Your task to perform on an android device: What's on my calendar tomorrow? Image 0: 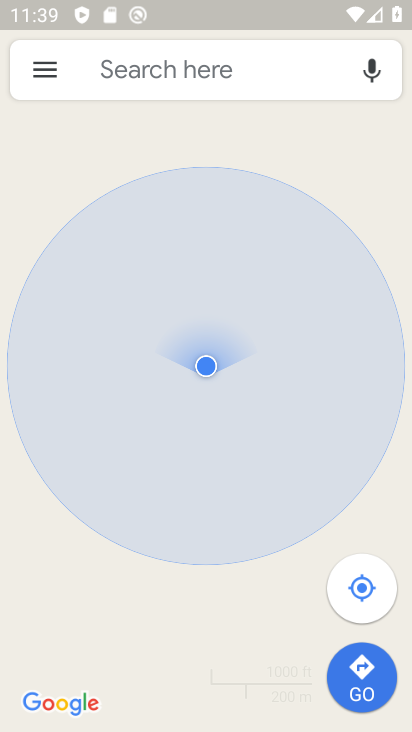
Step 0: press home button
Your task to perform on an android device: What's on my calendar tomorrow? Image 1: 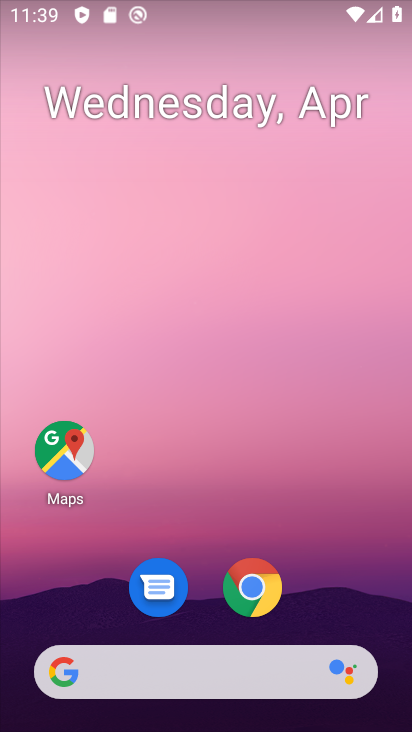
Step 1: click (280, 97)
Your task to perform on an android device: What's on my calendar tomorrow? Image 2: 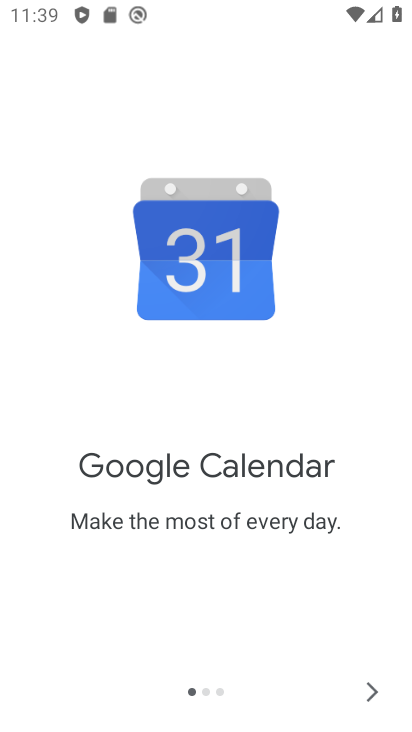
Step 2: click (380, 691)
Your task to perform on an android device: What's on my calendar tomorrow? Image 3: 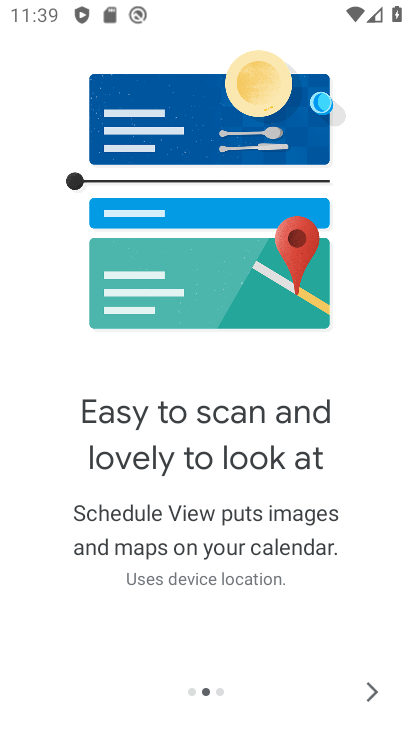
Step 3: click (380, 691)
Your task to perform on an android device: What's on my calendar tomorrow? Image 4: 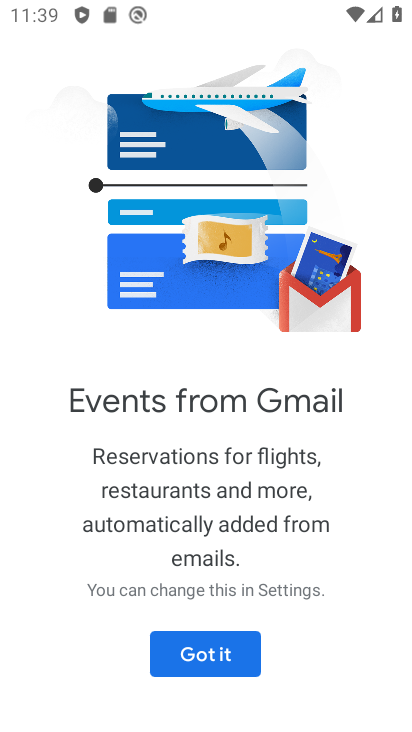
Step 4: click (246, 653)
Your task to perform on an android device: What's on my calendar tomorrow? Image 5: 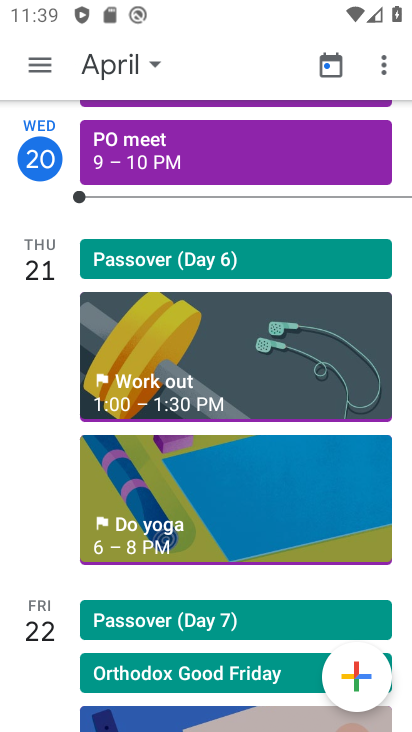
Step 5: click (202, 259)
Your task to perform on an android device: What's on my calendar tomorrow? Image 6: 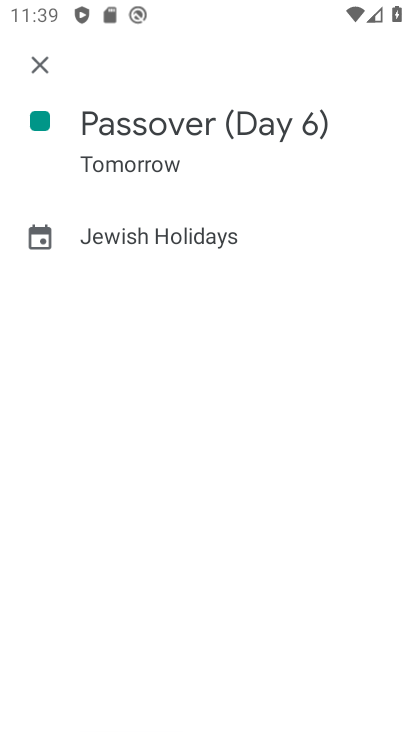
Step 6: task complete